Your task to perform on an android device: Go to display settings Image 0: 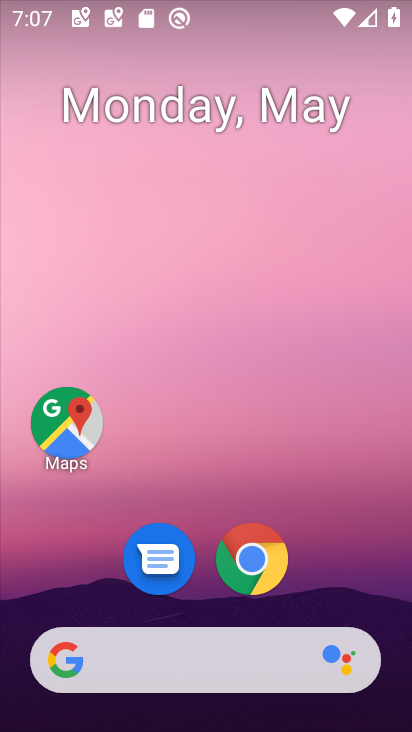
Step 0: drag from (383, 656) to (397, 85)
Your task to perform on an android device: Go to display settings Image 1: 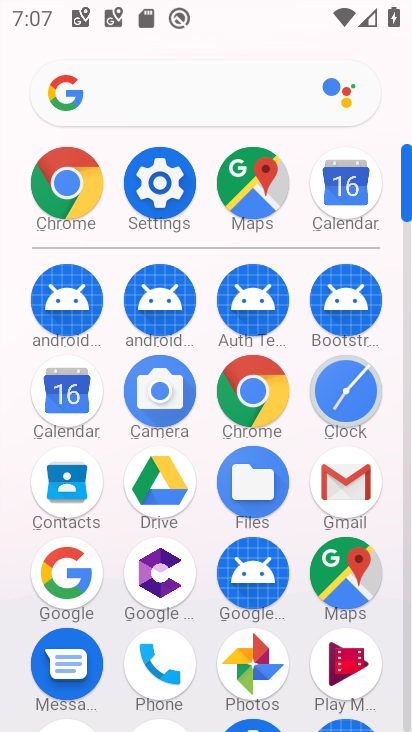
Step 1: click (162, 192)
Your task to perform on an android device: Go to display settings Image 2: 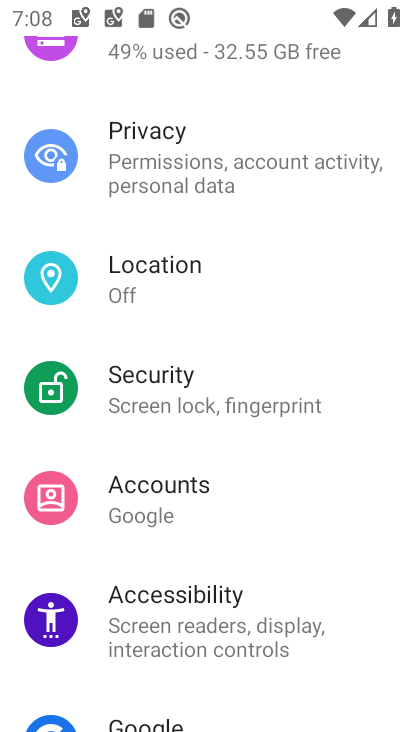
Step 2: drag from (230, 166) to (185, 633)
Your task to perform on an android device: Go to display settings Image 3: 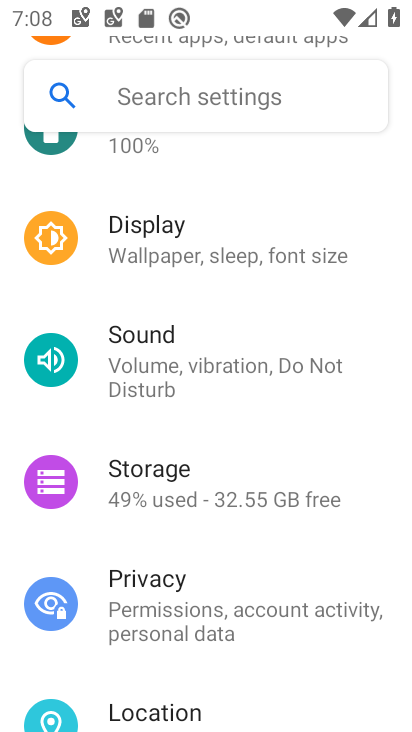
Step 3: click (181, 270)
Your task to perform on an android device: Go to display settings Image 4: 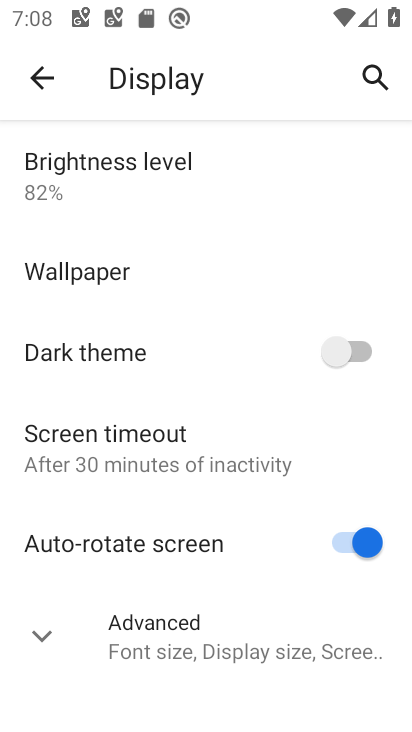
Step 4: task complete